Your task to perform on an android device: Search for the best selling books on Target. Image 0: 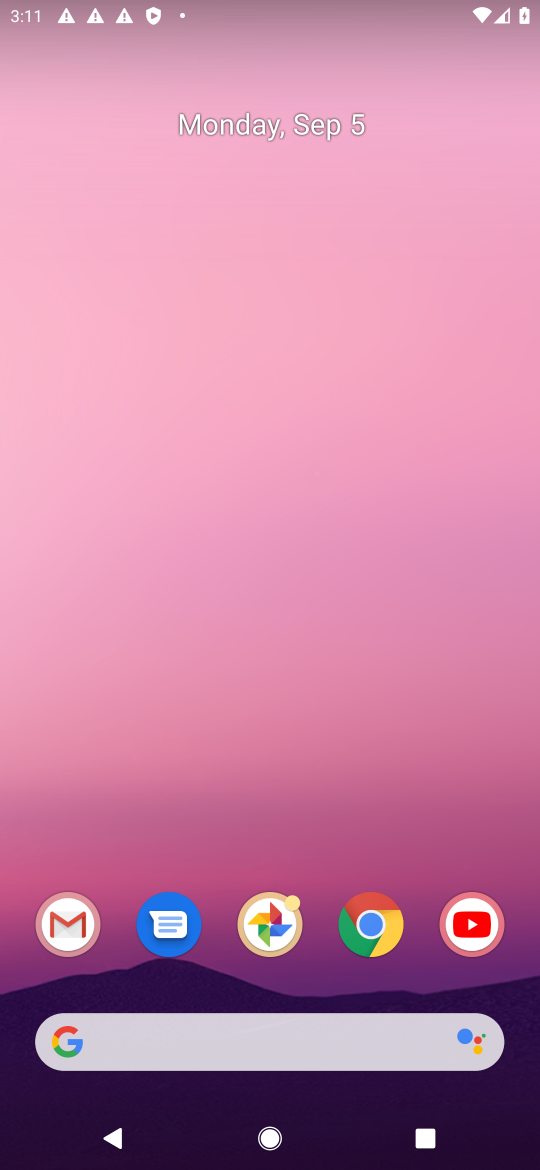
Step 0: drag from (338, 835) to (377, 625)
Your task to perform on an android device: Search for the best selling books on Target. Image 1: 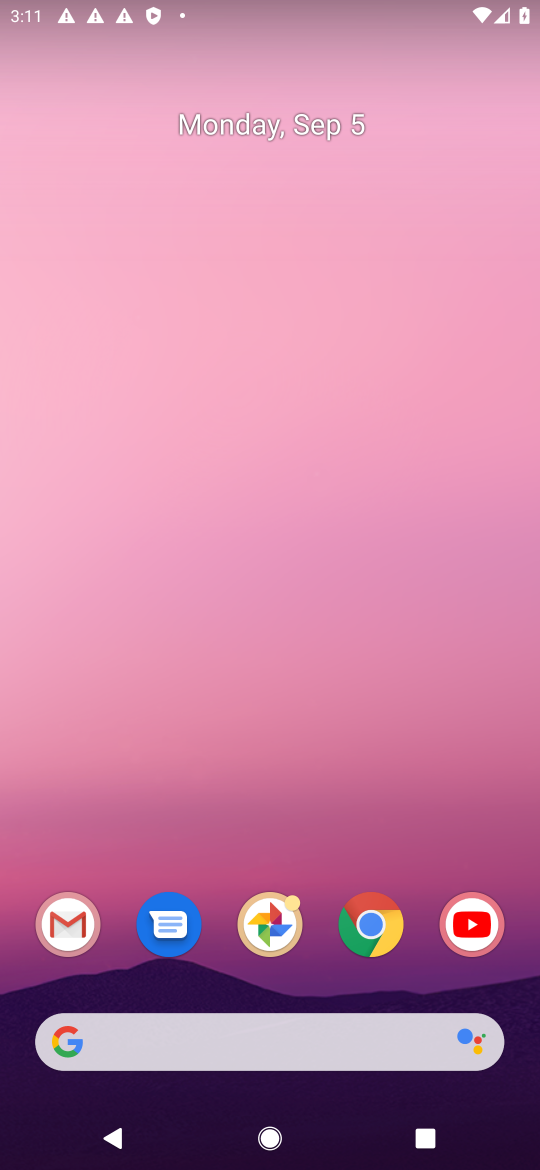
Step 1: drag from (279, 1038) to (326, 267)
Your task to perform on an android device: Search for the best selling books on Target. Image 2: 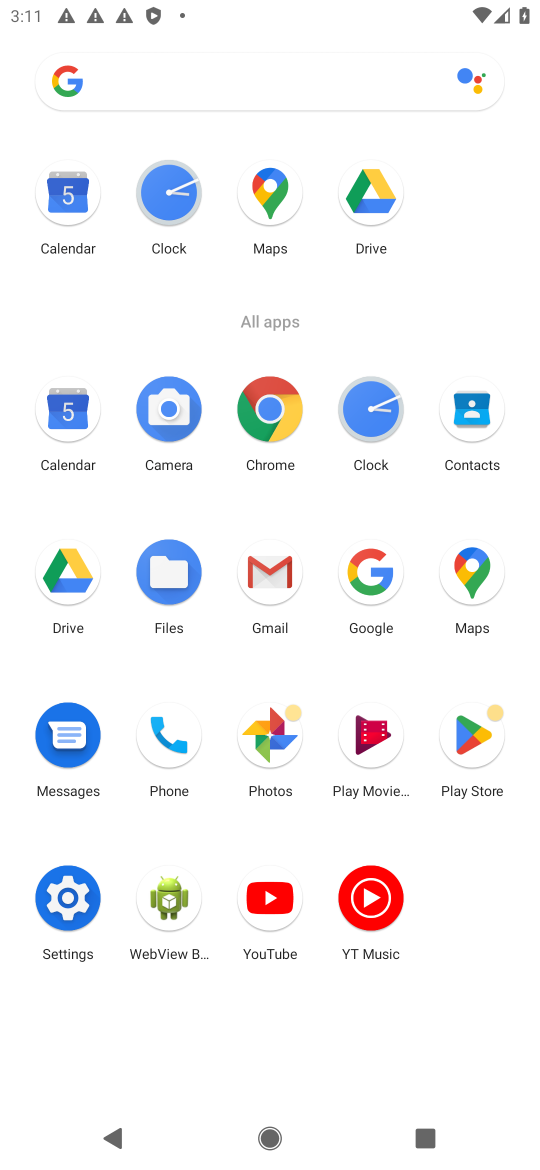
Step 2: click (277, 441)
Your task to perform on an android device: Search for the best selling books on Target. Image 3: 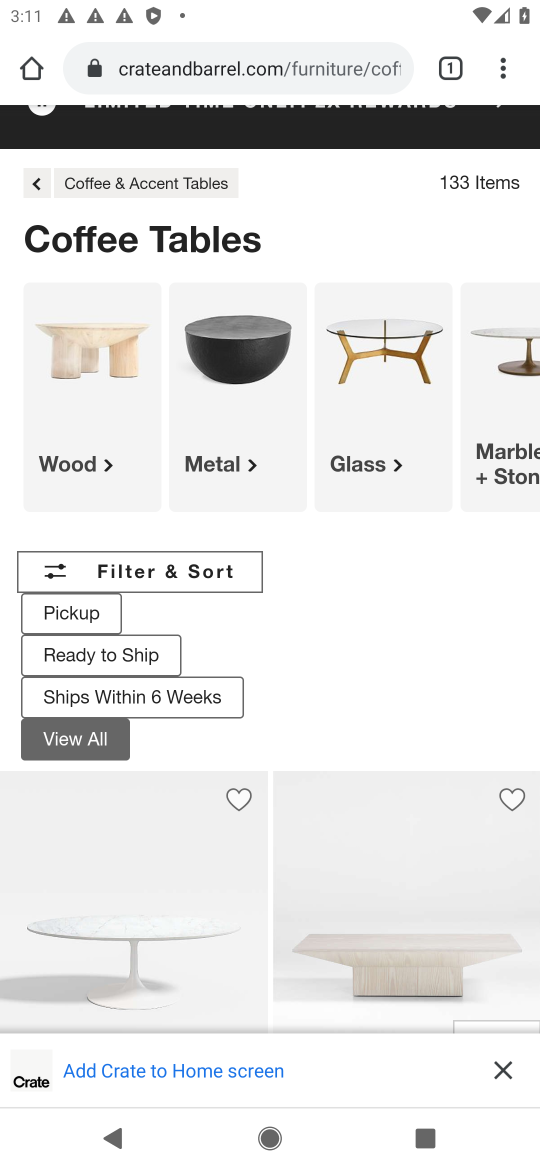
Step 3: click (363, 60)
Your task to perform on an android device: Search for the best selling books on Target. Image 4: 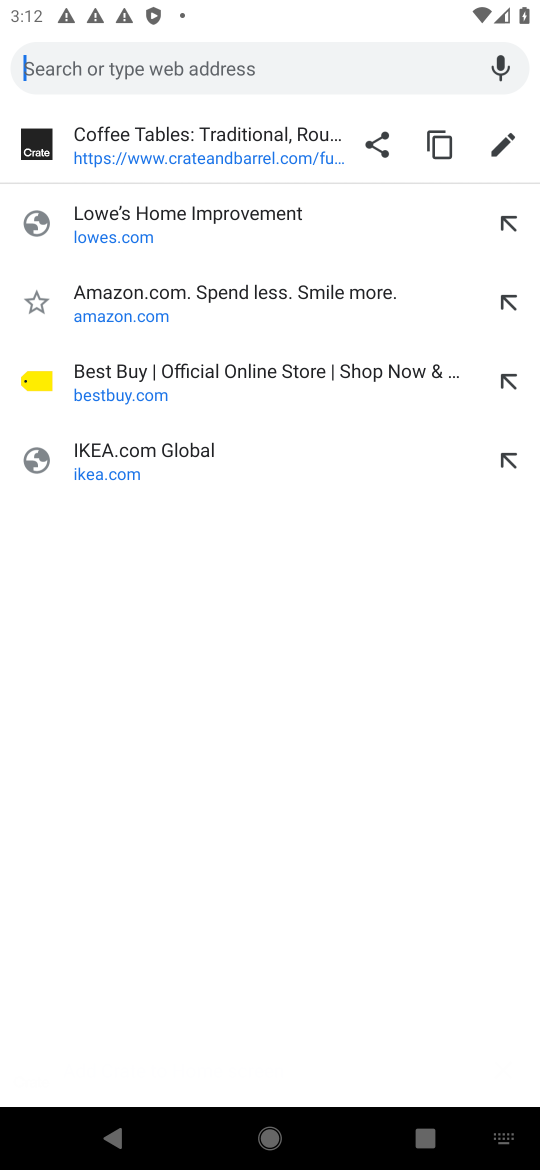
Step 4: type "target"
Your task to perform on an android device: Search for the best selling books on Target. Image 5: 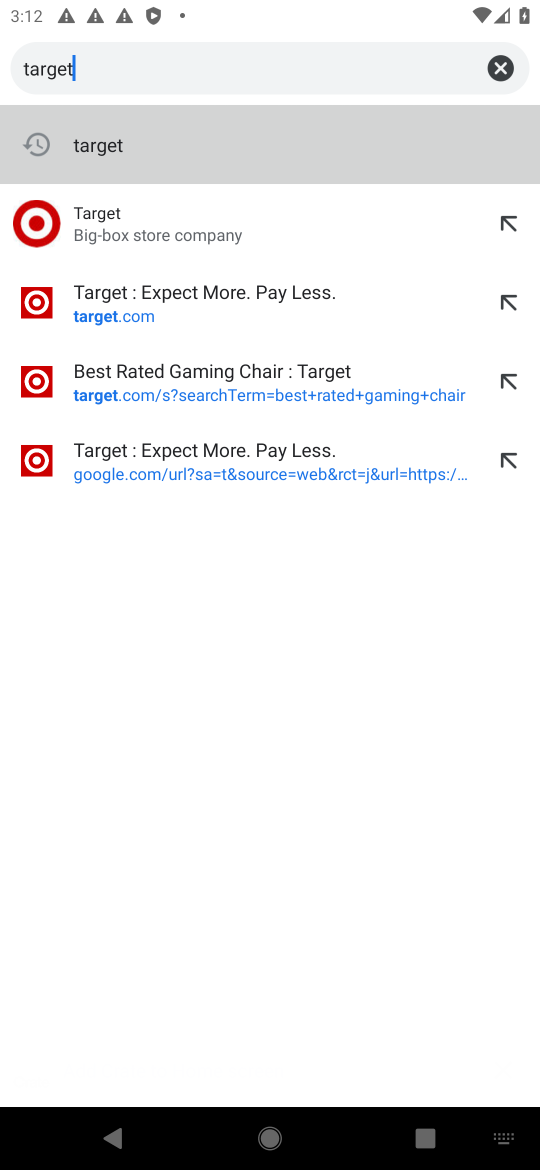
Step 5: click (110, 216)
Your task to perform on an android device: Search for the best selling books on Target. Image 6: 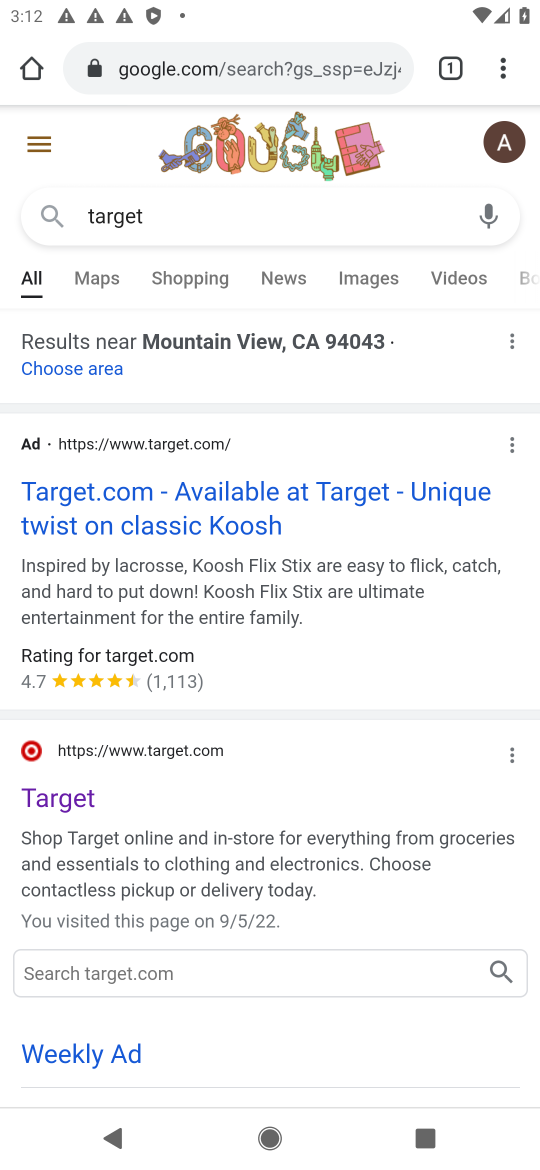
Step 6: click (74, 796)
Your task to perform on an android device: Search for the best selling books on Target. Image 7: 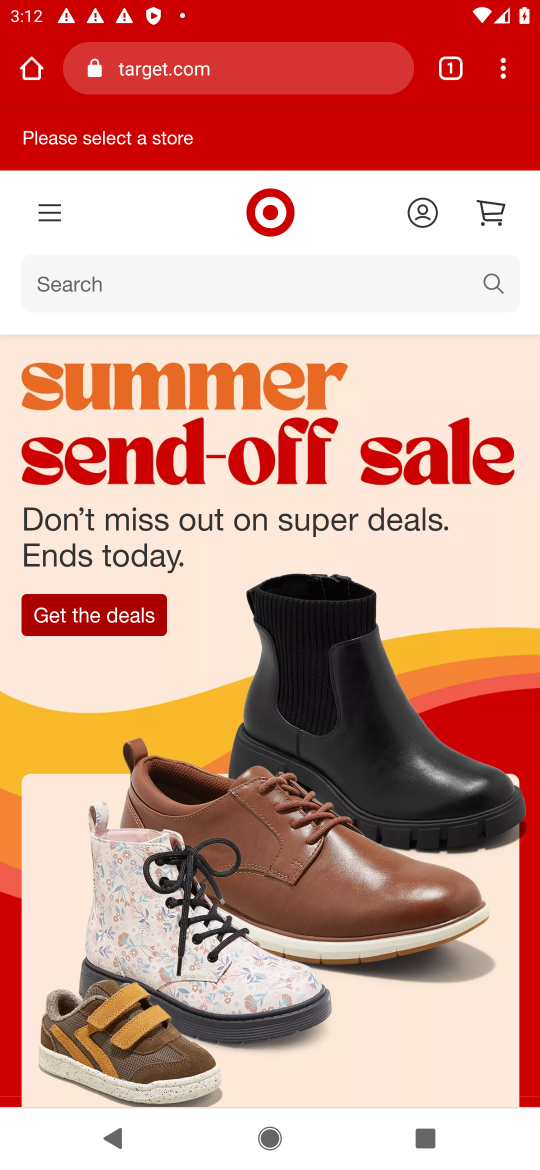
Step 7: click (341, 297)
Your task to perform on an android device: Search for the best selling books on Target. Image 8: 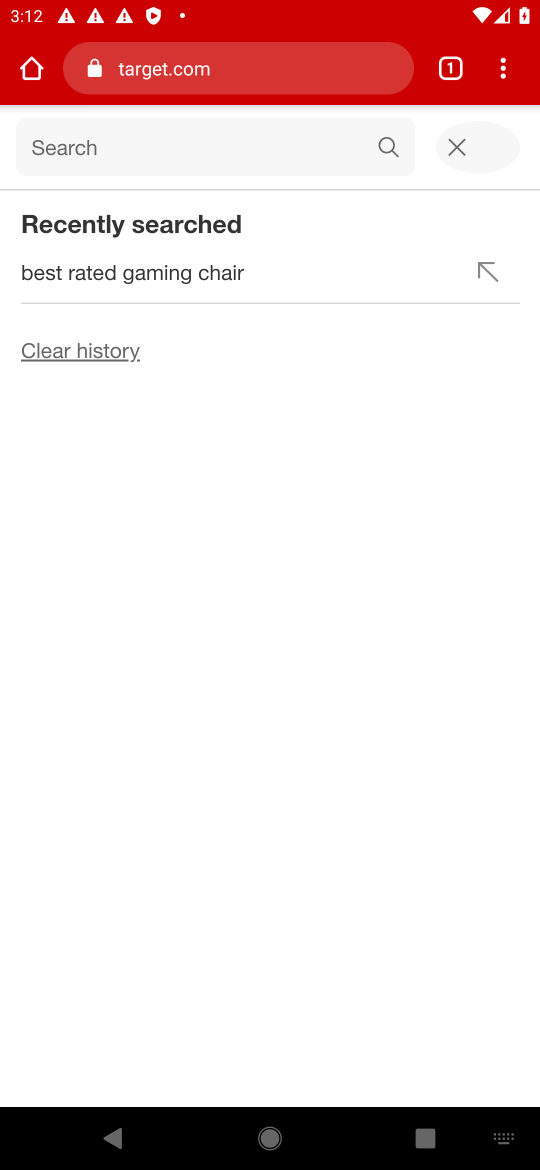
Step 8: type "best selling books"
Your task to perform on an android device: Search for the best selling books on Target. Image 9: 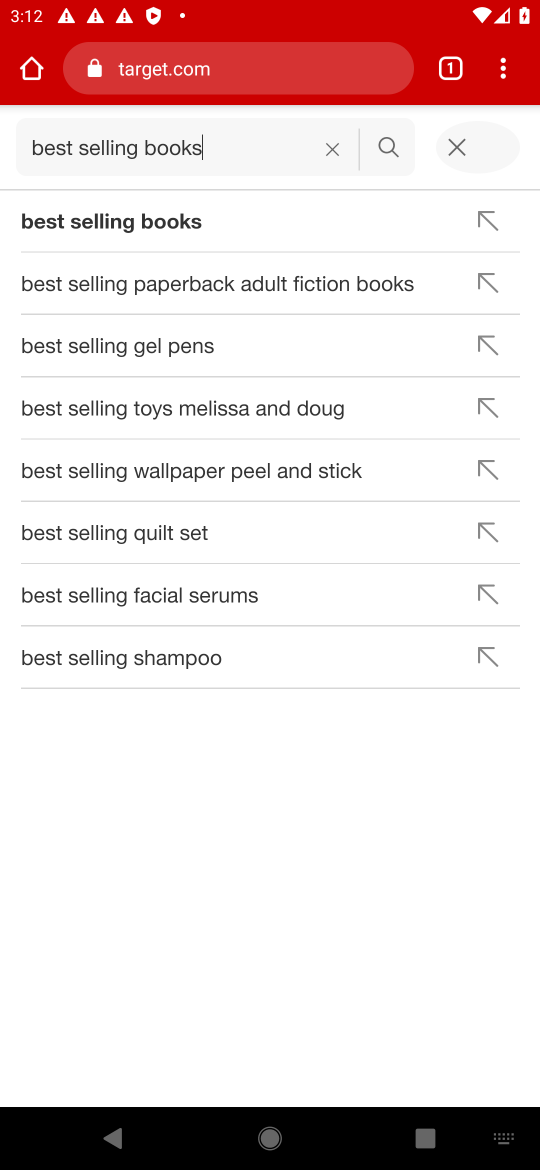
Step 9: click (393, 145)
Your task to perform on an android device: Search for the best selling books on Target. Image 10: 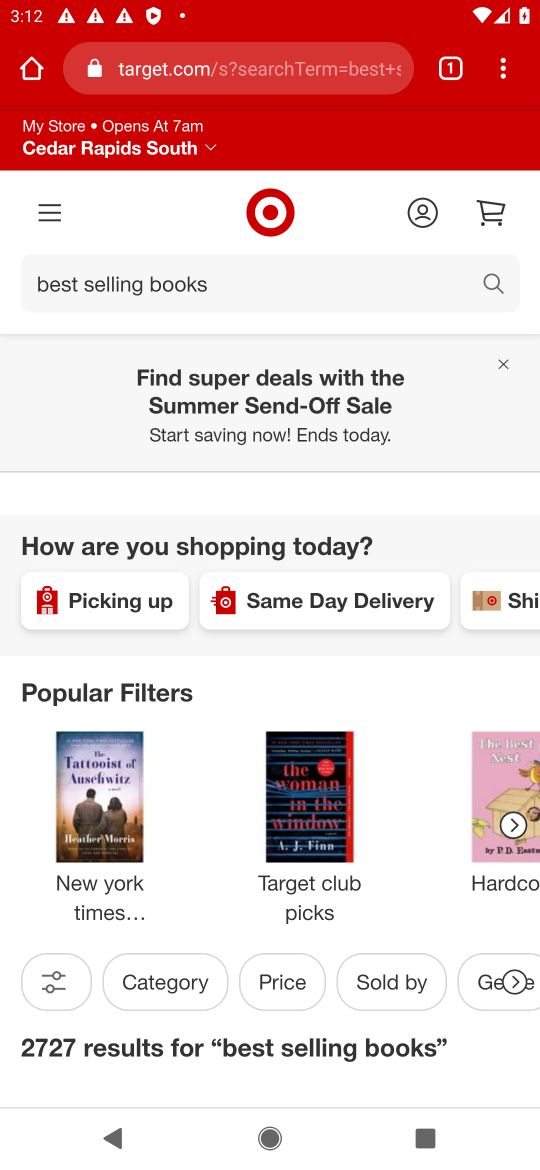
Step 10: task complete